Your task to perform on an android device: Go to Yahoo.com Image 0: 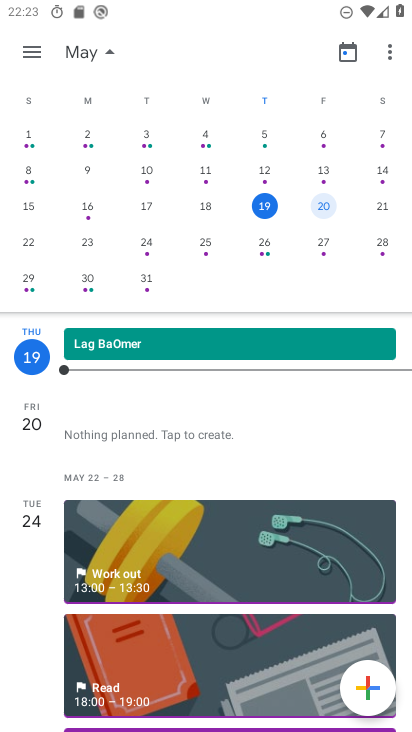
Step 0: press home button
Your task to perform on an android device: Go to Yahoo.com Image 1: 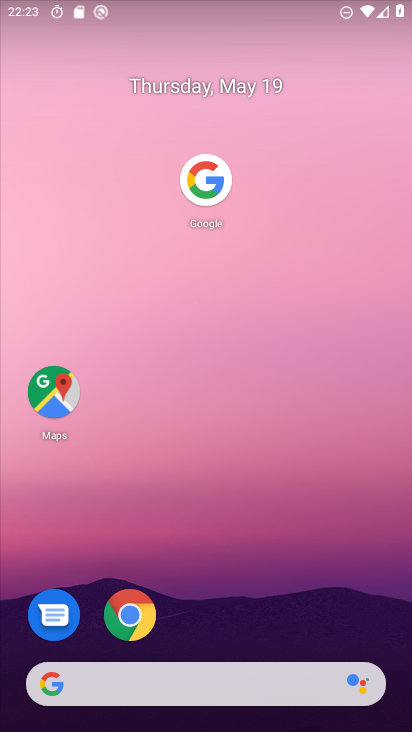
Step 1: click (130, 620)
Your task to perform on an android device: Go to Yahoo.com Image 2: 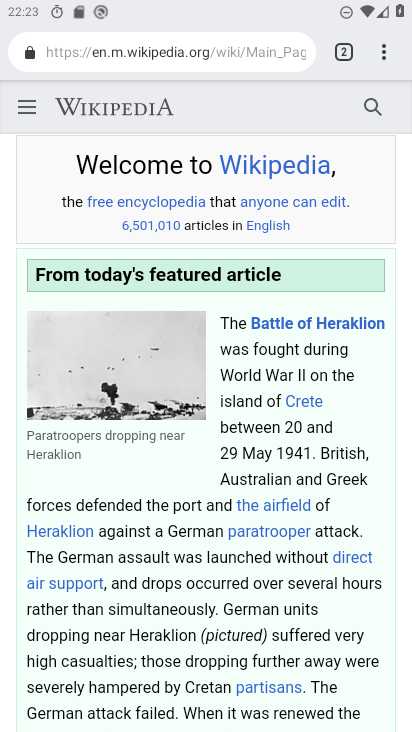
Step 2: task complete